Your task to perform on an android device: toggle notifications settings in the gmail app Image 0: 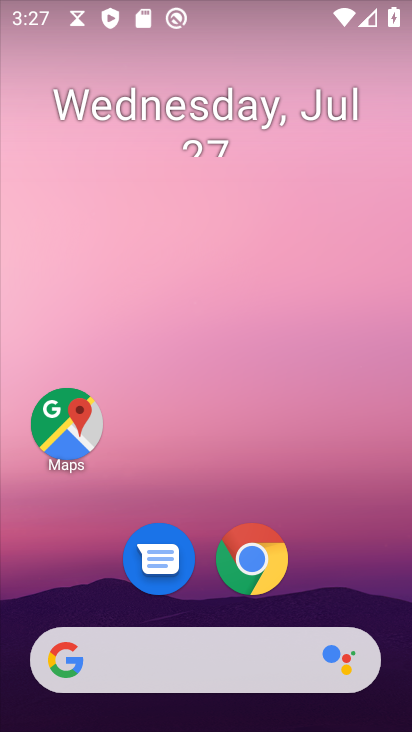
Step 0: drag from (130, 571) to (266, 76)
Your task to perform on an android device: toggle notifications settings in the gmail app Image 1: 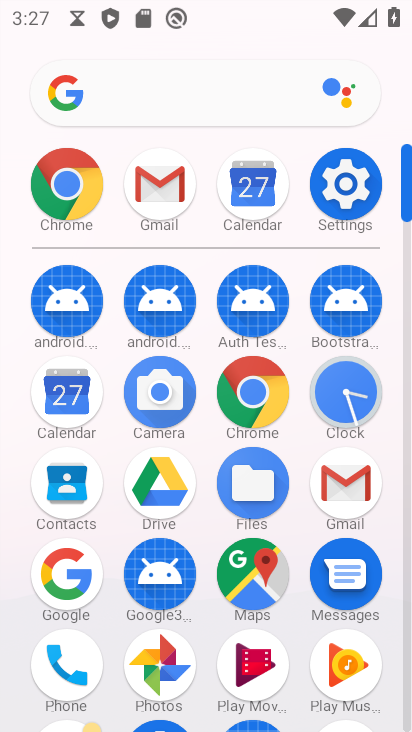
Step 1: click (154, 192)
Your task to perform on an android device: toggle notifications settings in the gmail app Image 2: 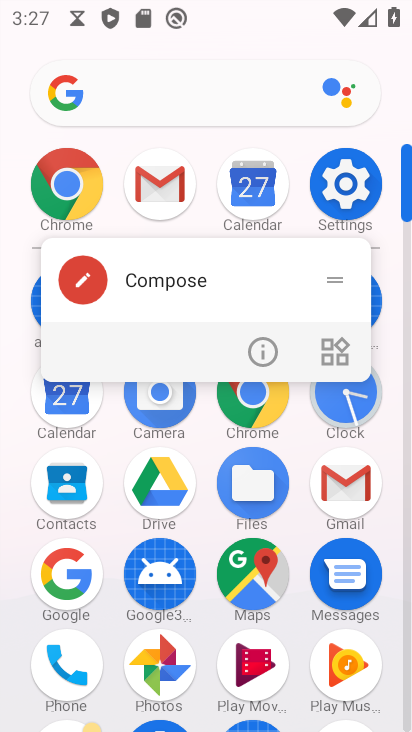
Step 2: click (271, 350)
Your task to perform on an android device: toggle notifications settings in the gmail app Image 3: 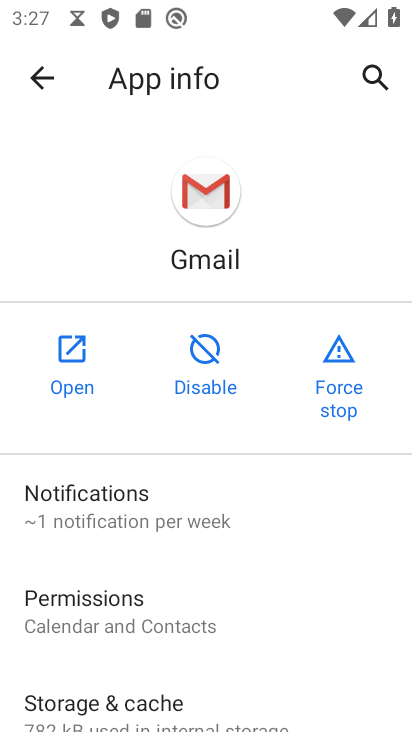
Step 3: click (150, 506)
Your task to perform on an android device: toggle notifications settings in the gmail app Image 4: 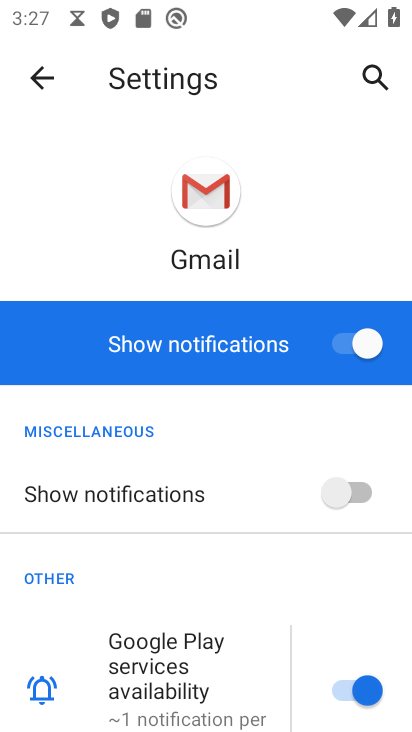
Step 4: click (357, 347)
Your task to perform on an android device: toggle notifications settings in the gmail app Image 5: 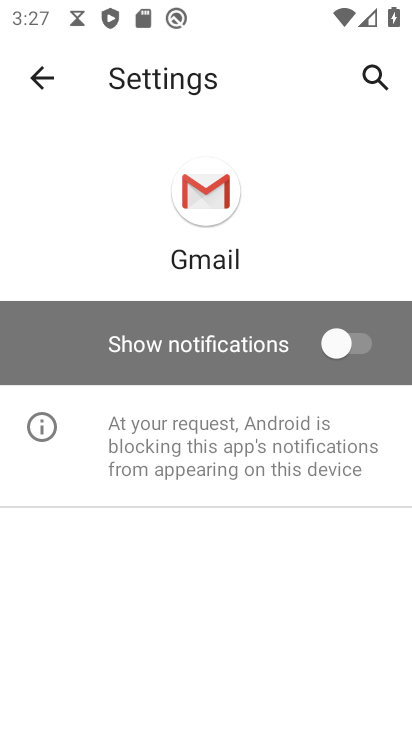
Step 5: task complete